Your task to perform on an android device: check out phone information Image 0: 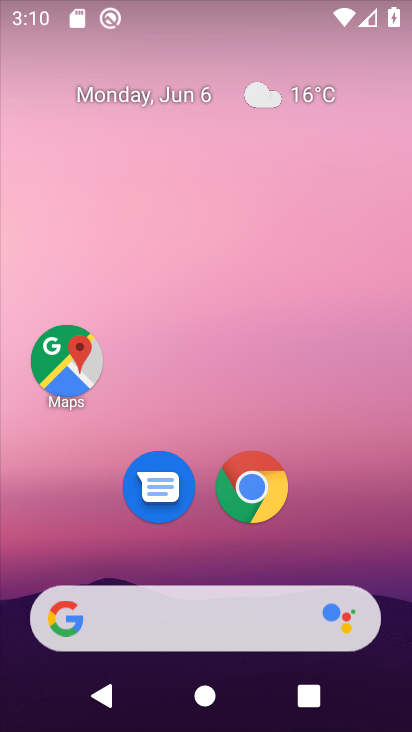
Step 0: drag from (141, 569) to (258, 13)
Your task to perform on an android device: check out phone information Image 1: 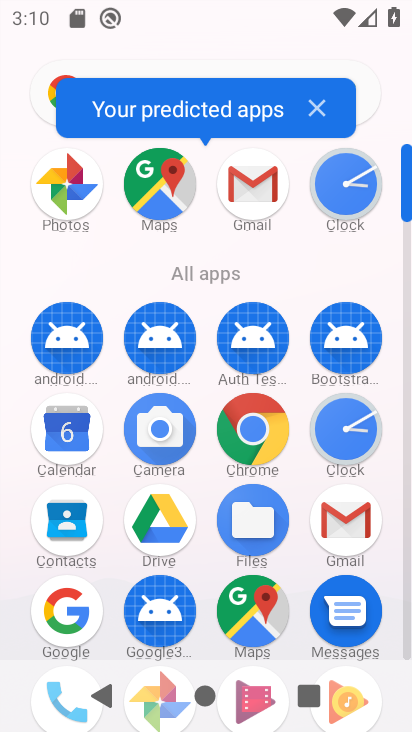
Step 1: drag from (116, 574) to (241, 285)
Your task to perform on an android device: check out phone information Image 2: 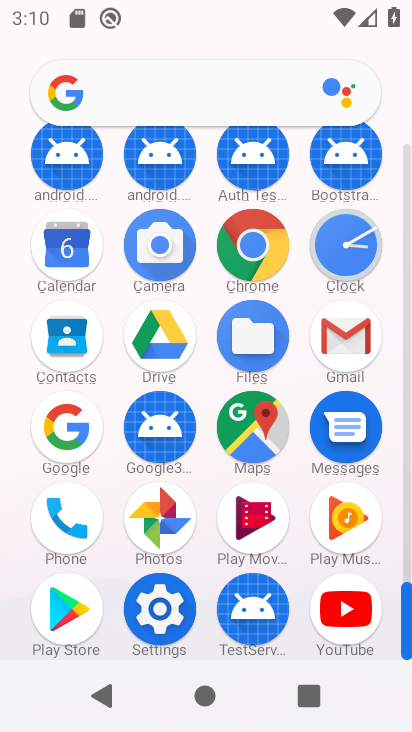
Step 2: click (160, 620)
Your task to perform on an android device: check out phone information Image 3: 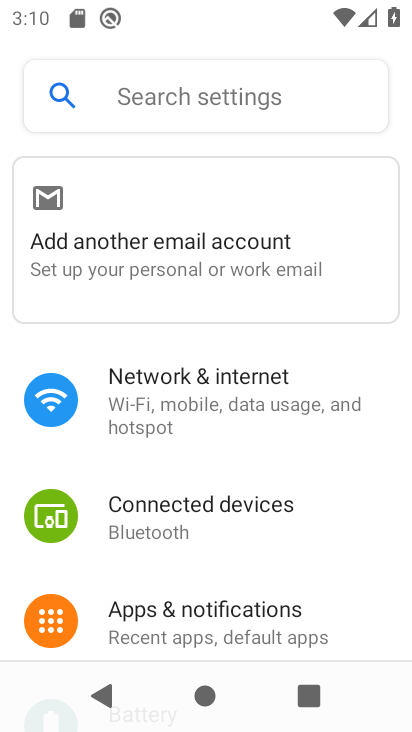
Step 3: drag from (164, 623) to (312, 172)
Your task to perform on an android device: check out phone information Image 4: 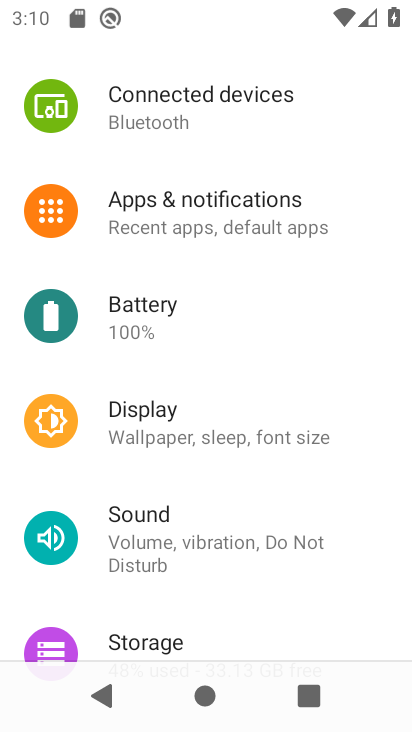
Step 4: drag from (192, 551) to (310, 114)
Your task to perform on an android device: check out phone information Image 5: 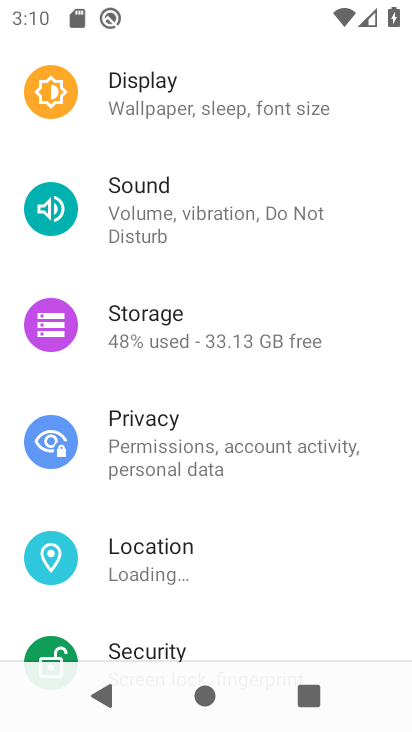
Step 5: drag from (147, 677) to (281, 148)
Your task to perform on an android device: check out phone information Image 6: 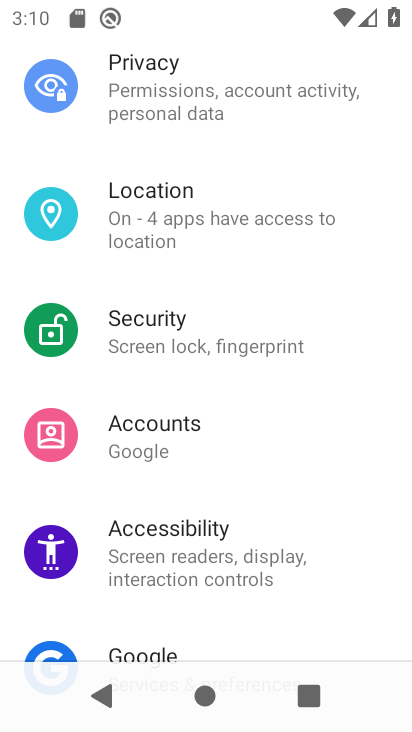
Step 6: drag from (179, 599) to (283, 164)
Your task to perform on an android device: check out phone information Image 7: 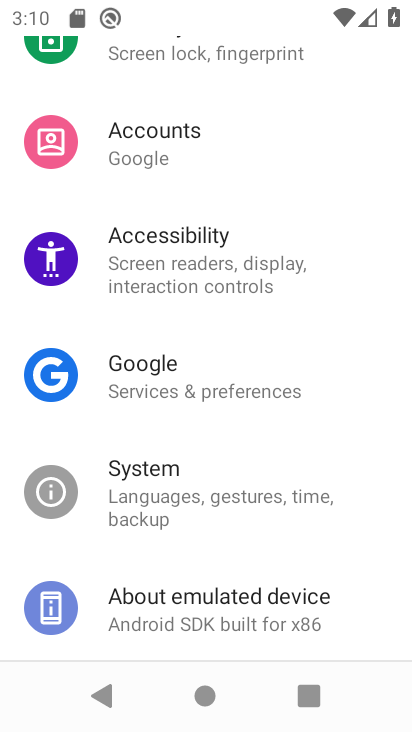
Step 7: click (172, 622)
Your task to perform on an android device: check out phone information Image 8: 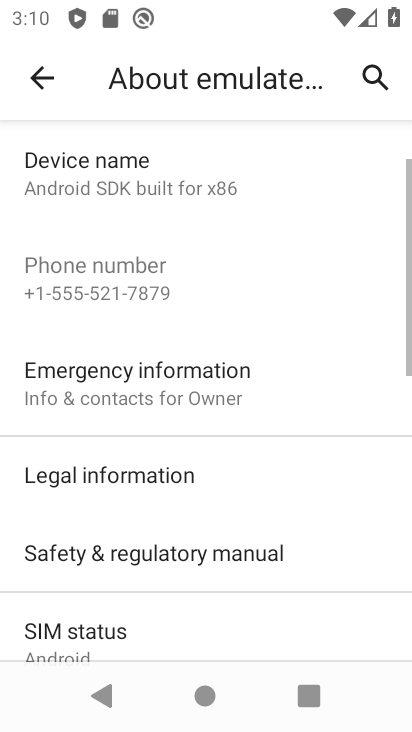
Step 8: task complete